Your task to perform on an android device: open chrome privacy settings Image 0: 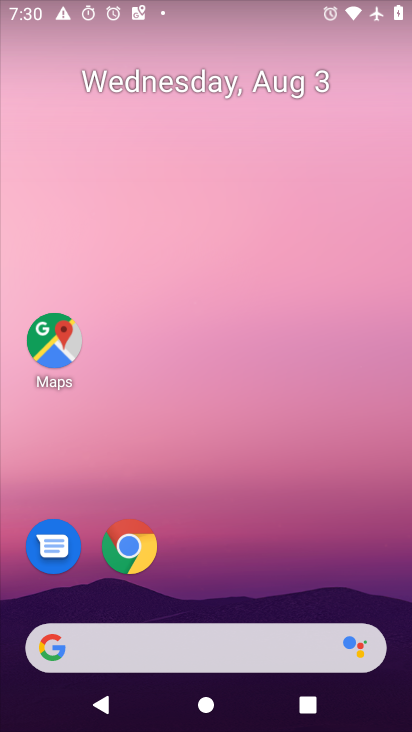
Step 0: click (129, 558)
Your task to perform on an android device: open chrome privacy settings Image 1: 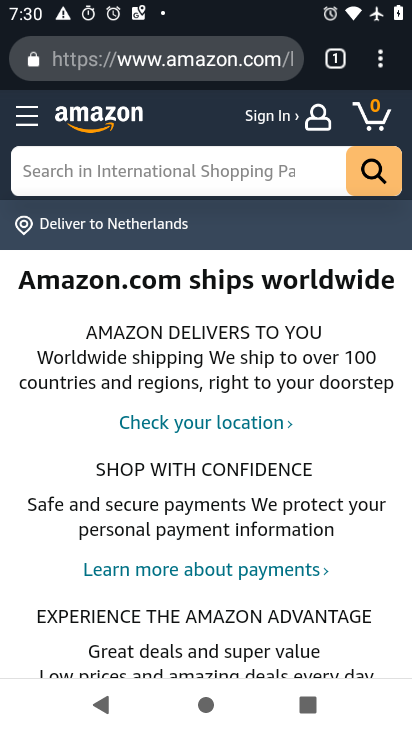
Step 1: drag from (384, 74) to (214, 586)
Your task to perform on an android device: open chrome privacy settings Image 2: 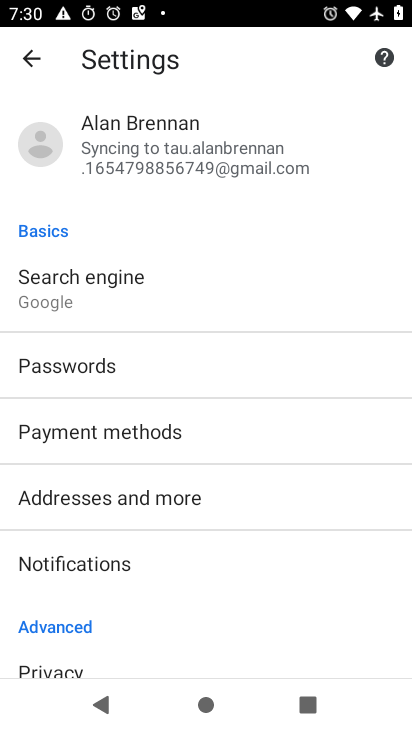
Step 2: drag from (166, 655) to (174, 255)
Your task to perform on an android device: open chrome privacy settings Image 3: 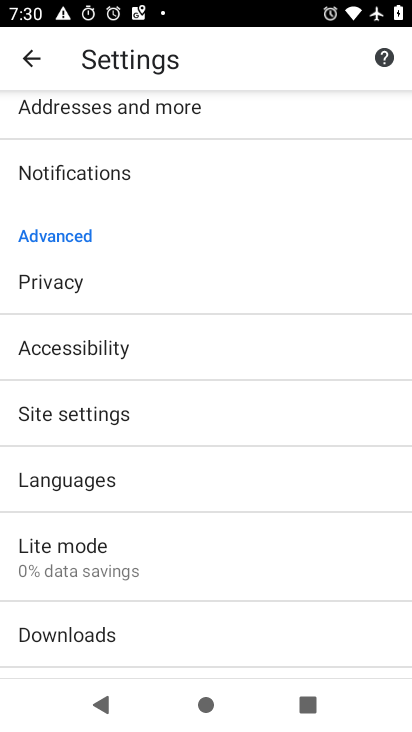
Step 3: click (50, 279)
Your task to perform on an android device: open chrome privacy settings Image 4: 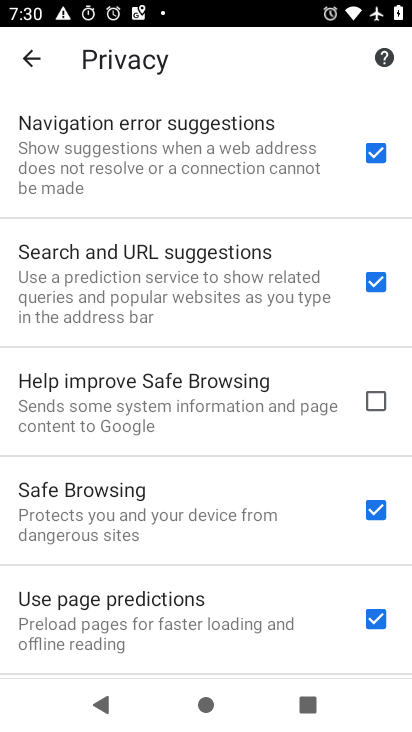
Step 4: task complete